Your task to perform on an android device: change the clock display to digital Image 0: 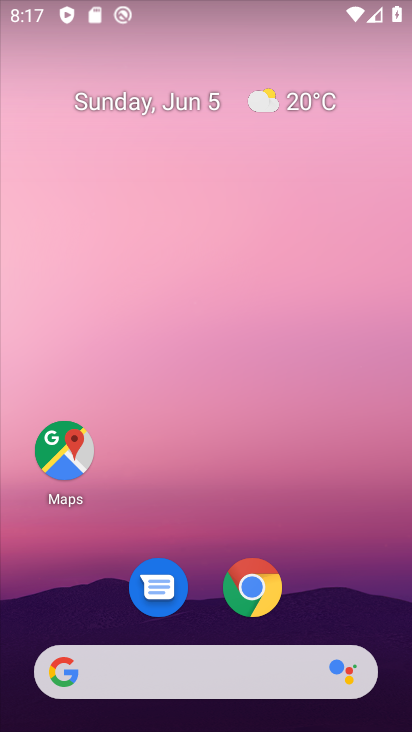
Step 0: drag from (334, 614) to (266, 8)
Your task to perform on an android device: change the clock display to digital Image 1: 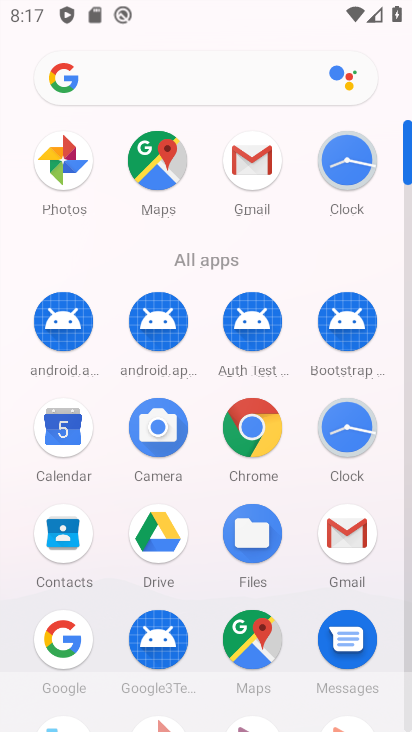
Step 1: click (352, 148)
Your task to perform on an android device: change the clock display to digital Image 2: 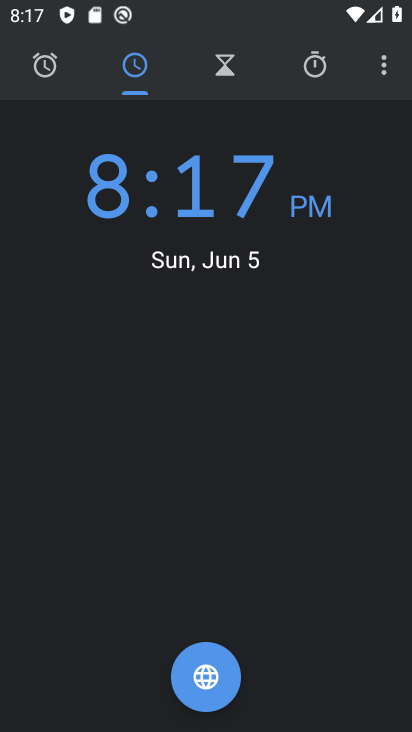
Step 2: click (384, 61)
Your task to perform on an android device: change the clock display to digital Image 3: 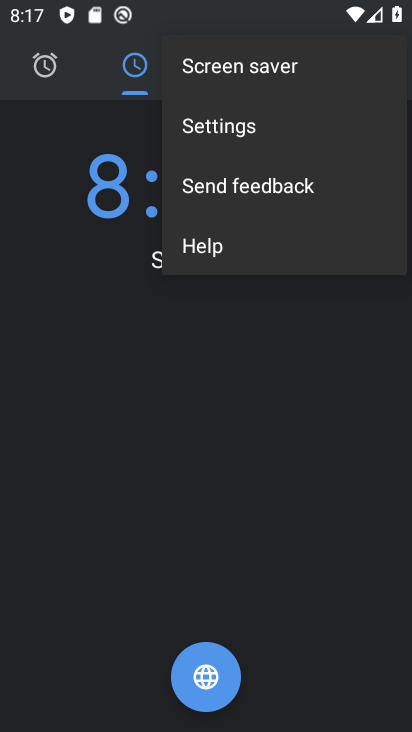
Step 3: click (240, 123)
Your task to perform on an android device: change the clock display to digital Image 4: 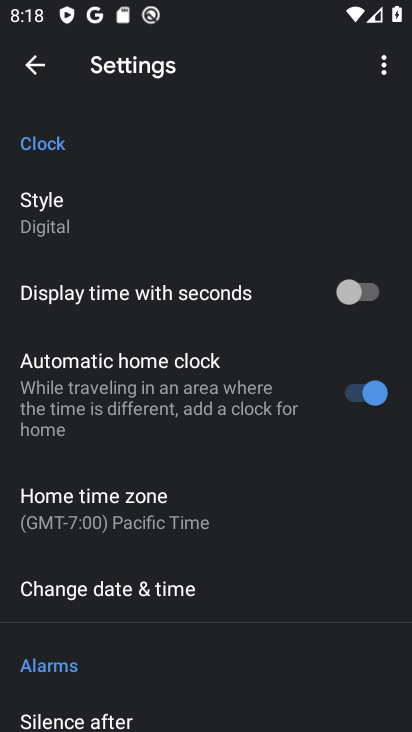
Step 4: press home button
Your task to perform on an android device: change the clock display to digital Image 5: 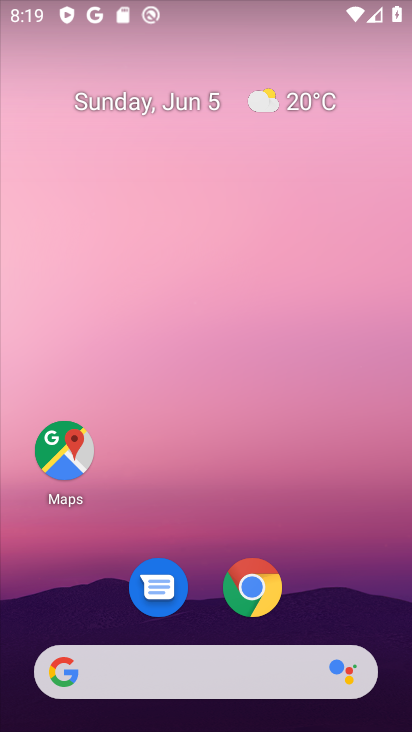
Step 5: drag from (330, 591) to (173, 15)
Your task to perform on an android device: change the clock display to digital Image 6: 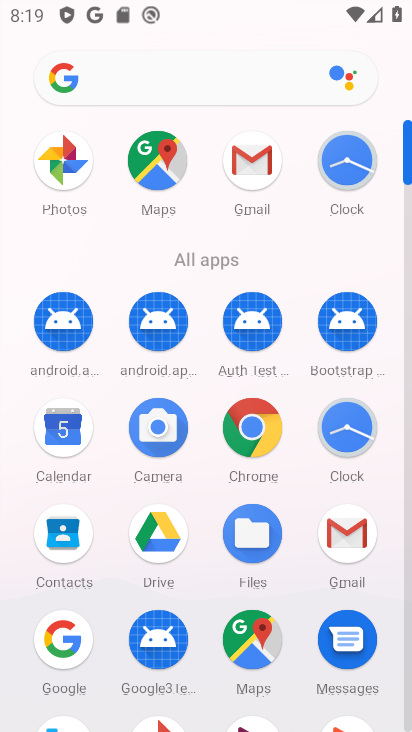
Step 6: click (343, 239)
Your task to perform on an android device: change the clock display to digital Image 7: 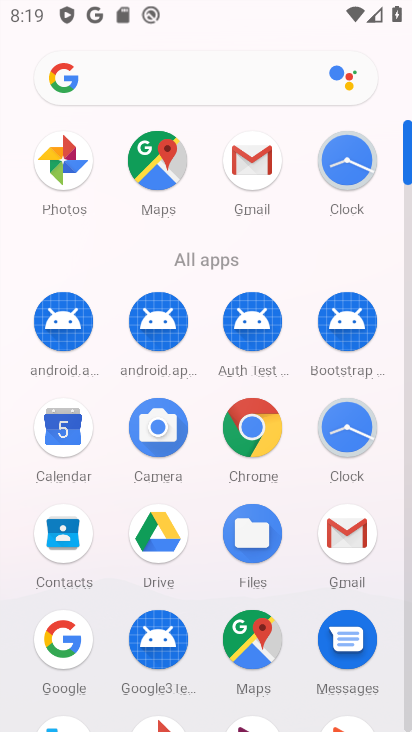
Step 7: click (337, 167)
Your task to perform on an android device: change the clock display to digital Image 8: 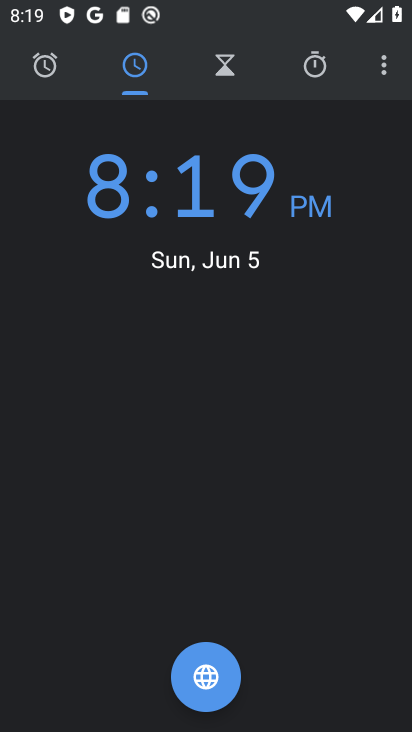
Step 8: click (381, 72)
Your task to perform on an android device: change the clock display to digital Image 9: 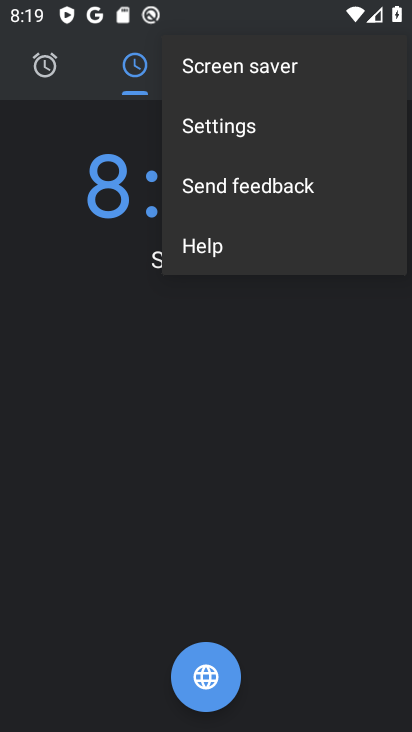
Step 9: click (230, 130)
Your task to perform on an android device: change the clock display to digital Image 10: 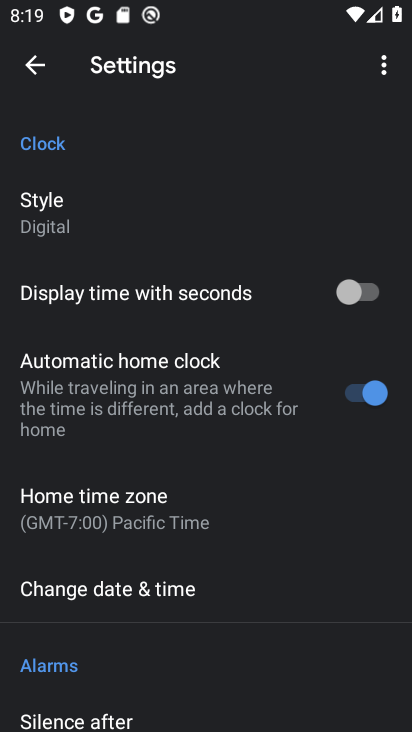
Step 10: task complete